Your task to perform on an android device: turn on sleep mode Image 0: 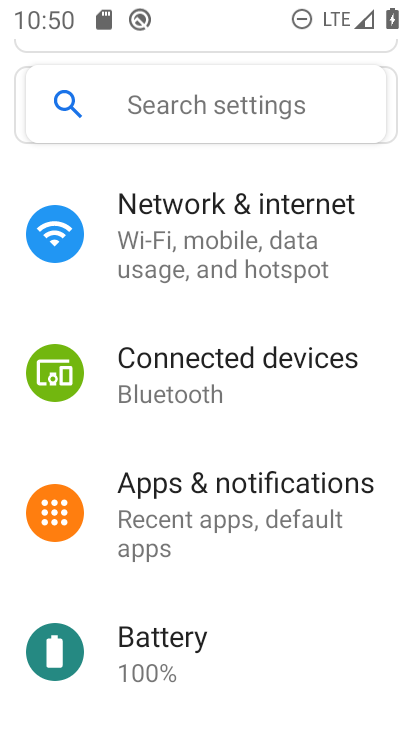
Step 0: task impossible